Your task to perform on an android device: change alarm snooze length Image 0: 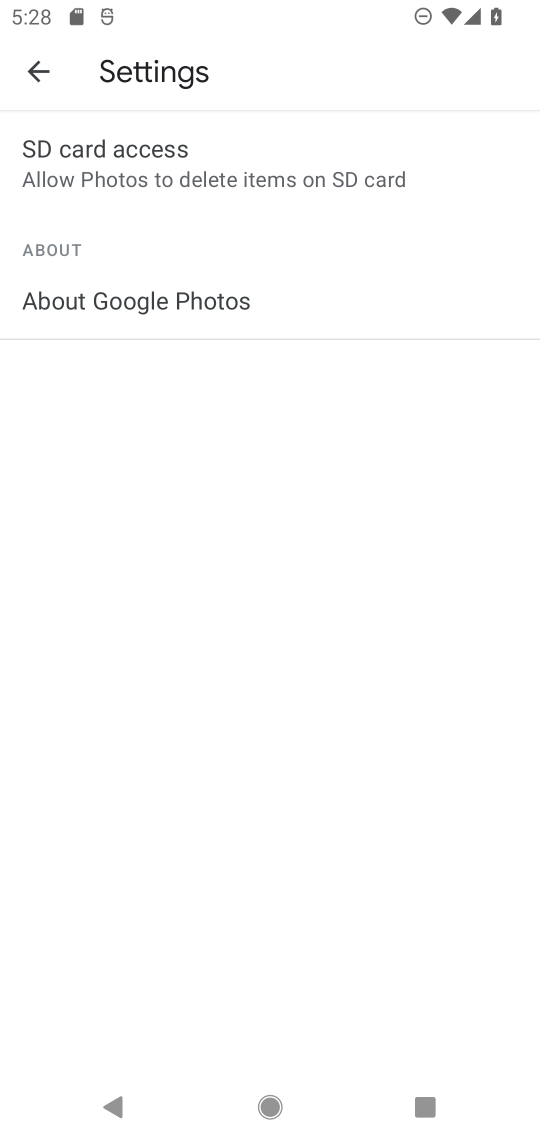
Step 0: press home button
Your task to perform on an android device: change alarm snooze length Image 1: 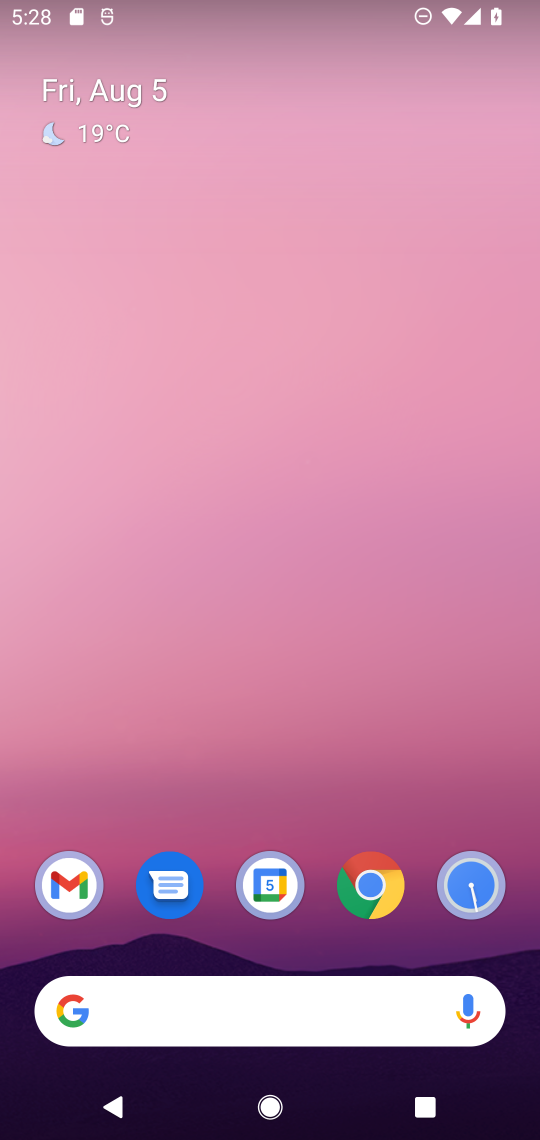
Step 1: drag from (330, 937) to (253, 99)
Your task to perform on an android device: change alarm snooze length Image 2: 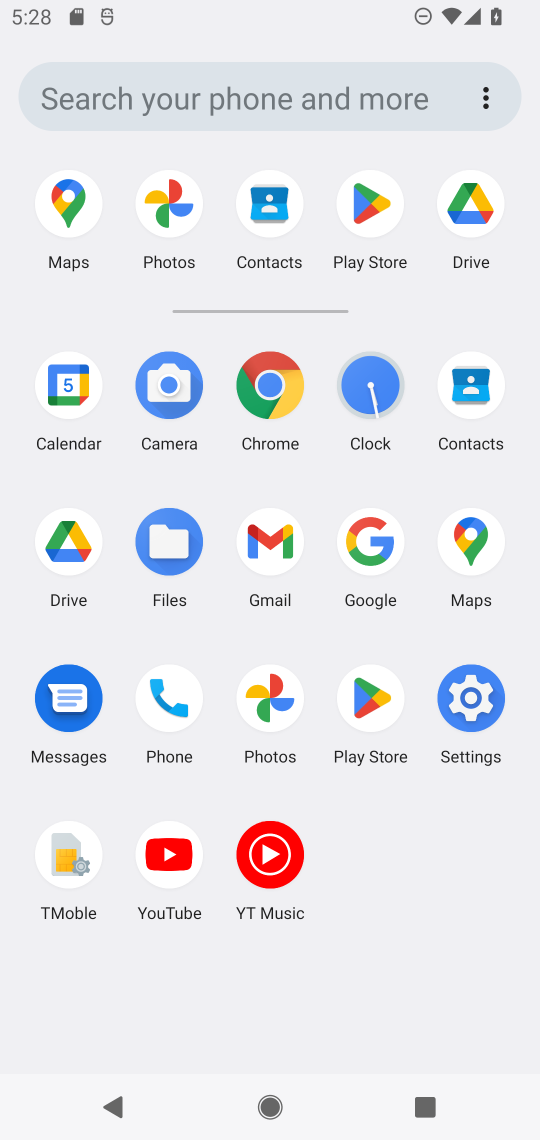
Step 2: click (365, 374)
Your task to perform on an android device: change alarm snooze length Image 3: 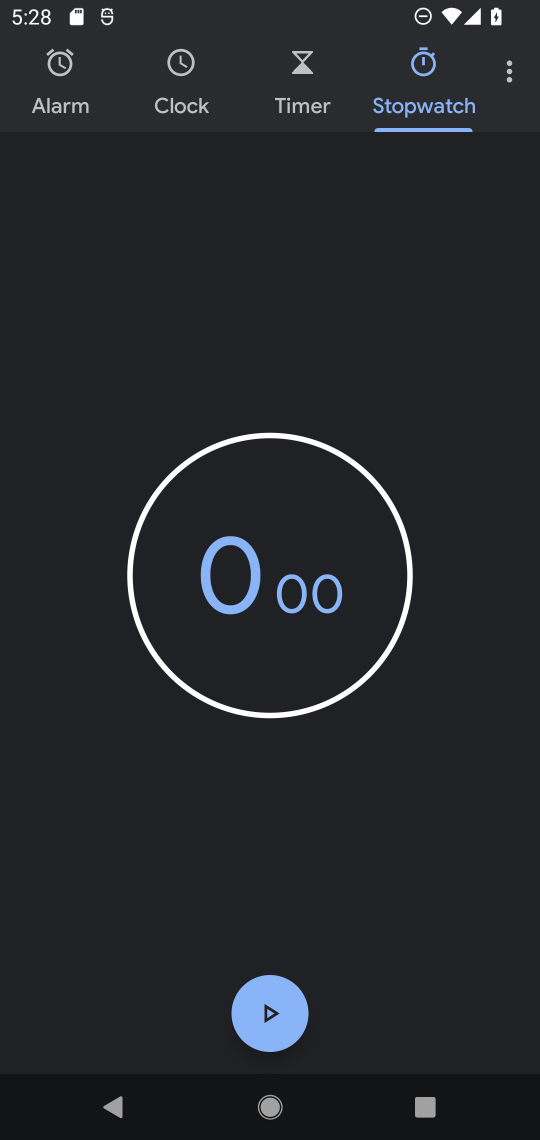
Step 3: click (508, 83)
Your task to perform on an android device: change alarm snooze length Image 4: 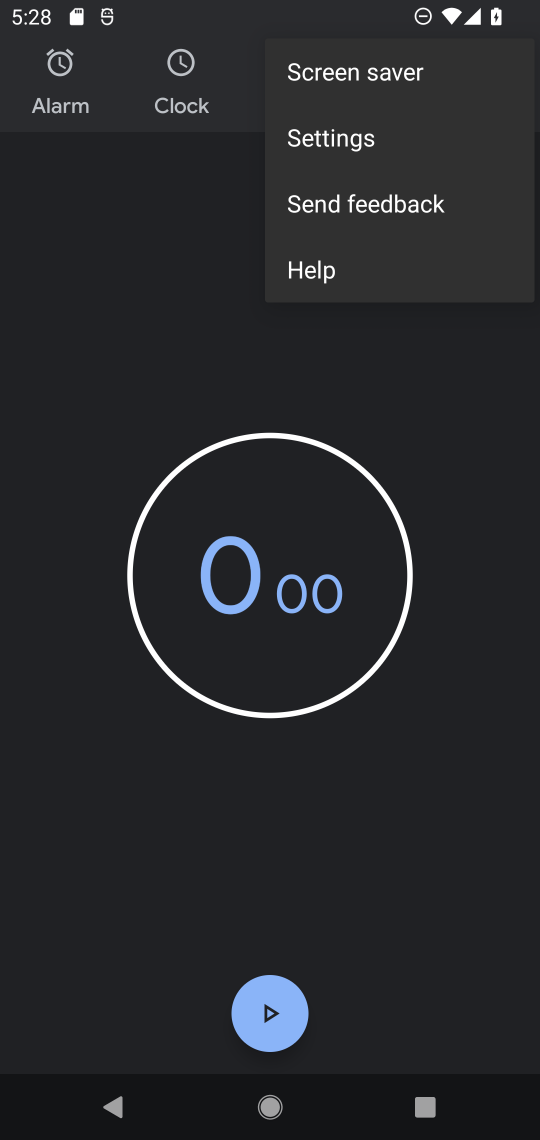
Step 4: click (337, 129)
Your task to perform on an android device: change alarm snooze length Image 5: 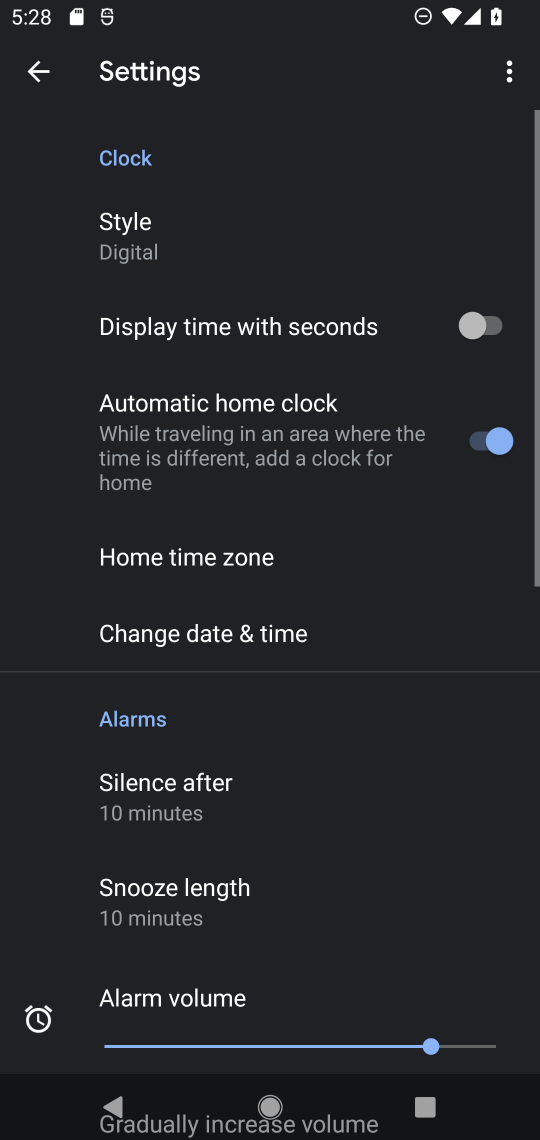
Step 5: click (232, 886)
Your task to perform on an android device: change alarm snooze length Image 6: 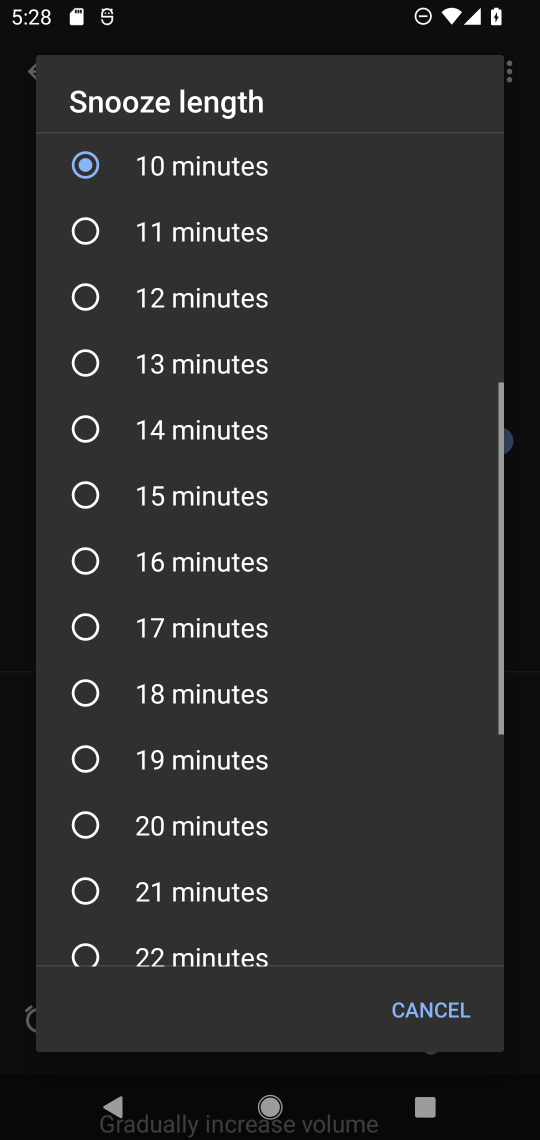
Step 6: click (218, 953)
Your task to perform on an android device: change alarm snooze length Image 7: 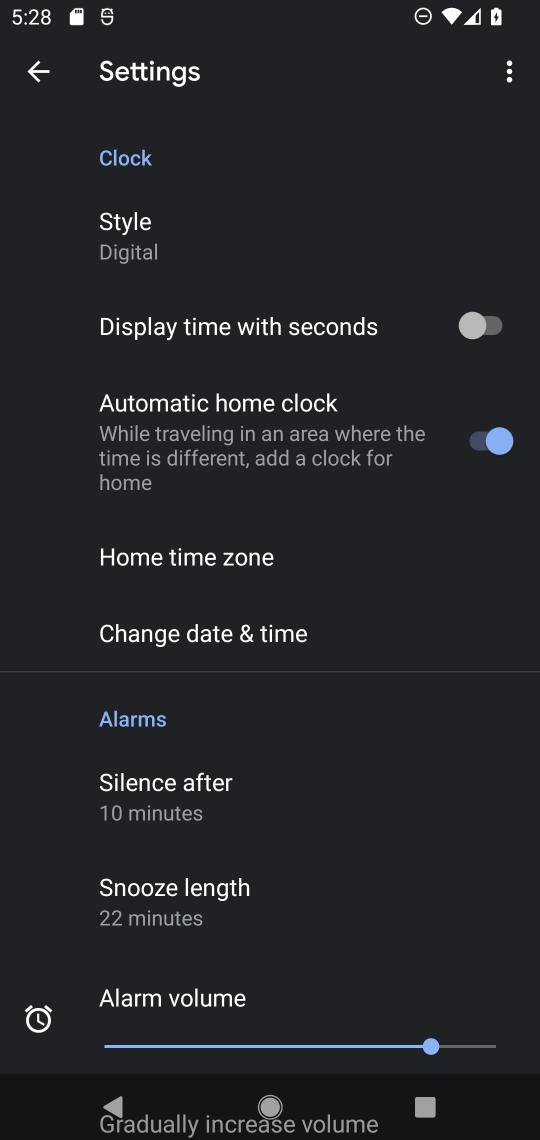
Step 7: task complete